Your task to perform on an android device: open app "Messages" (install if not already installed) and enter user name: "Hersey@inbox.com" and password: "facings" Image 0: 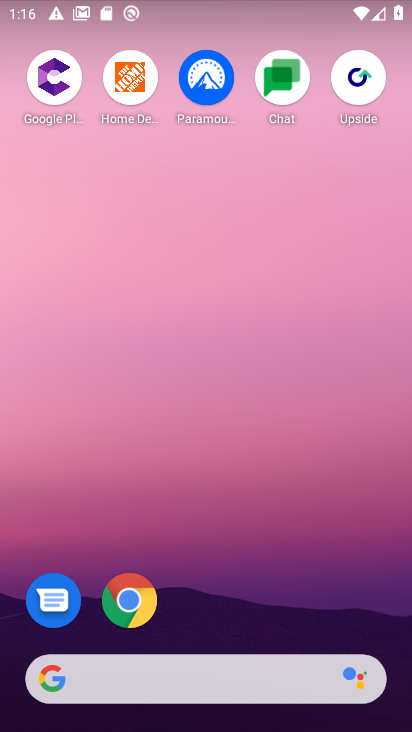
Step 0: drag from (153, 649) to (158, 364)
Your task to perform on an android device: open app "Messages" (install if not already installed) and enter user name: "Hersey@inbox.com" and password: "facings" Image 1: 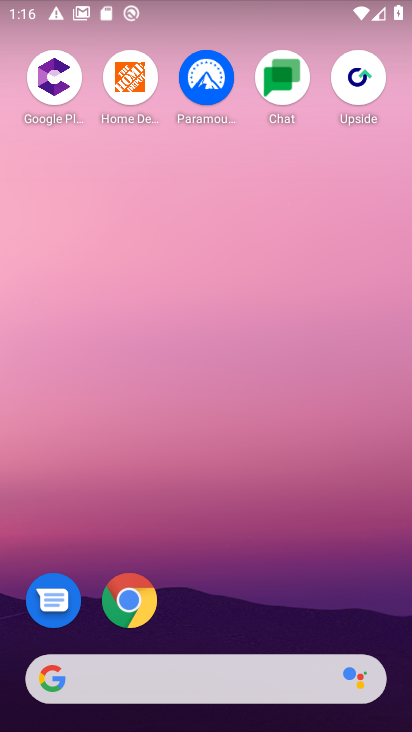
Step 1: drag from (249, 652) to (238, 139)
Your task to perform on an android device: open app "Messages" (install if not already installed) and enter user name: "Hersey@inbox.com" and password: "facings" Image 2: 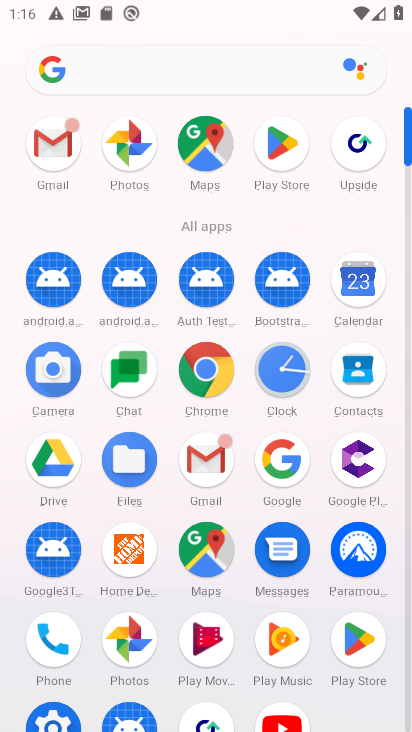
Step 2: click (278, 557)
Your task to perform on an android device: open app "Messages" (install if not already installed) and enter user name: "Hersey@inbox.com" and password: "facings" Image 3: 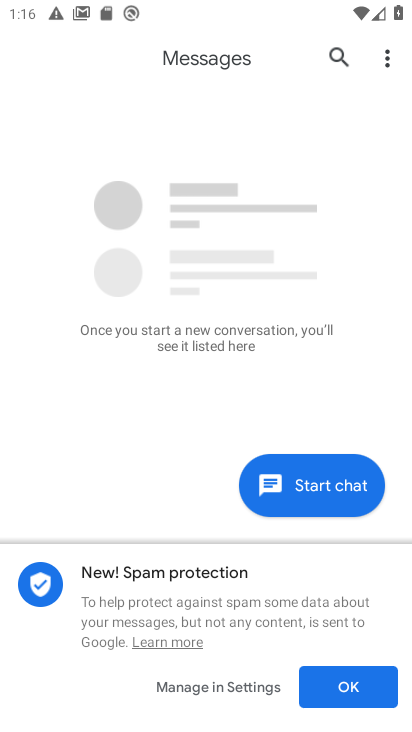
Step 3: task complete